Your task to perform on an android device: turn off notifications settings in the gmail app Image 0: 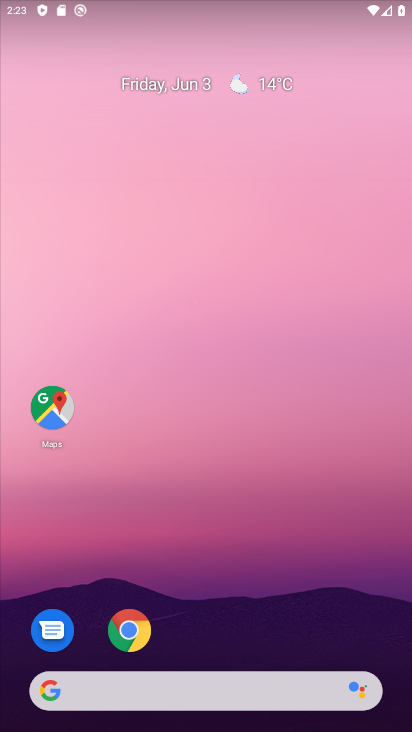
Step 0: drag from (217, 626) to (195, 240)
Your task to perform on an android device: turn off notifications settings in the gmail app Image 1: 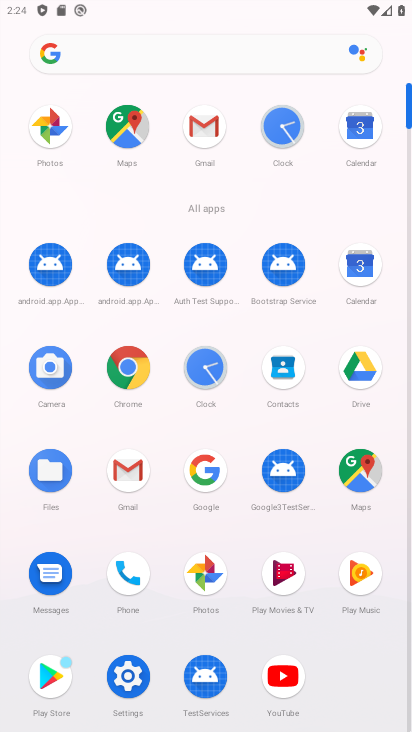
Step 1: click (211, 135)
Your task to perform on an android device: turn off notifications settings in the gmail app Image 2: 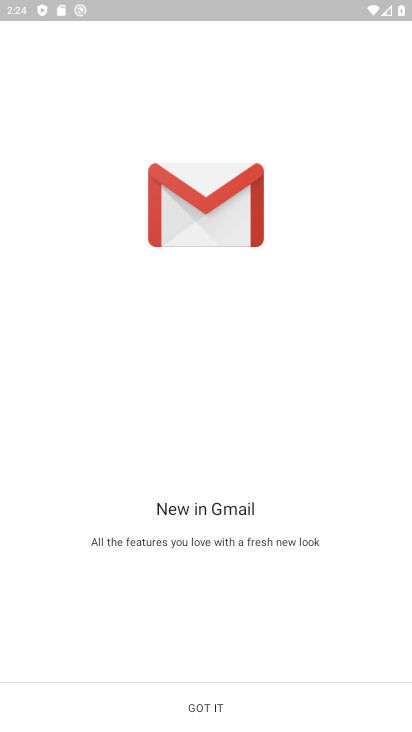
Step 2: click (216, 700)
Your task to perform on an android device: turn off notifications settings in the gmail app Image 3: 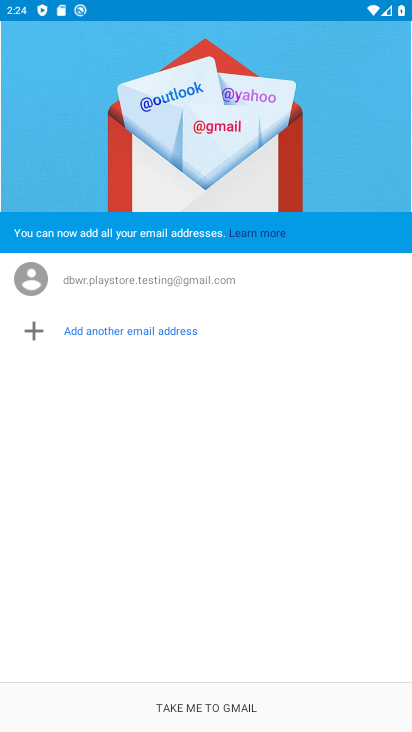
Step 3: click (216, 701)
Your task to perform on an android device: turn off notifications settings in the gmail app Image 4: 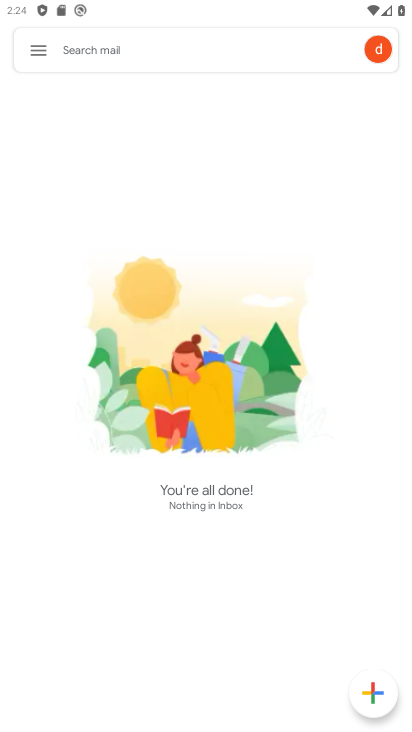
Step 4: click (42, 47)
Your task to perform on an android device: turn off notifications settings in the gmail app Image 5: 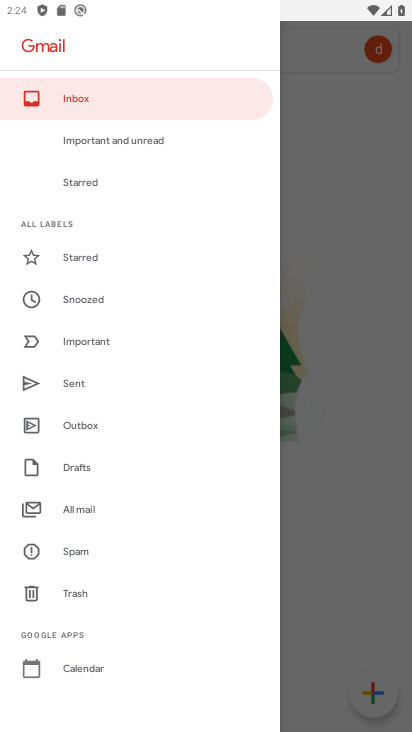
Step 5: drag from (122, 646) to (96, 229)
Your task to perform on an android device: turn off notifications settings in the gmail app Image 6: 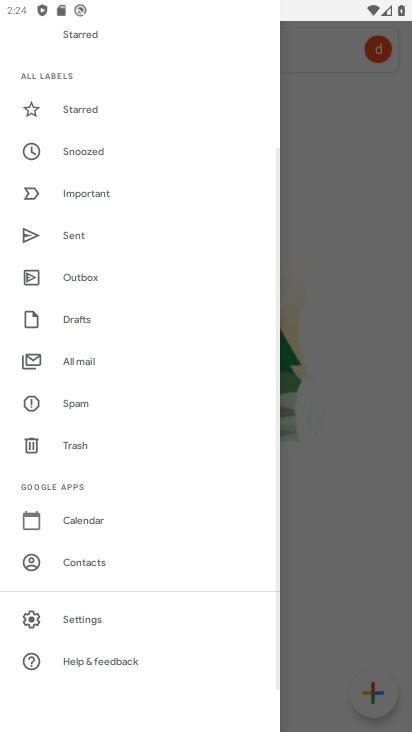
Step 6: click (85, 620)
Your task to perform on an android device: turn off notifications settings in the gmail app Image 7: 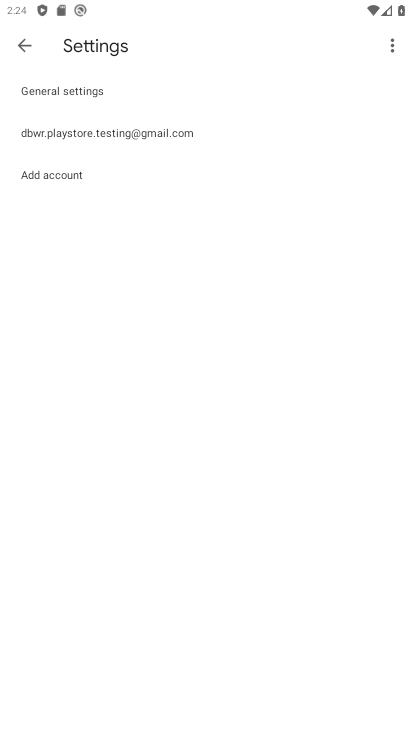
Step 7: click (123, 135)
Your task to perform on an android device: turn off notifications settings in the gmail app Image 8: 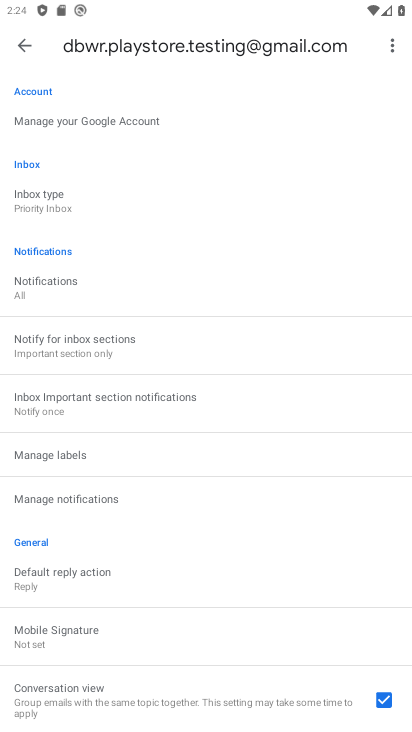
Step 8: click (140, 519)
Your task to perform on an android device: turn off notifications settings in the gmail app Image 9: 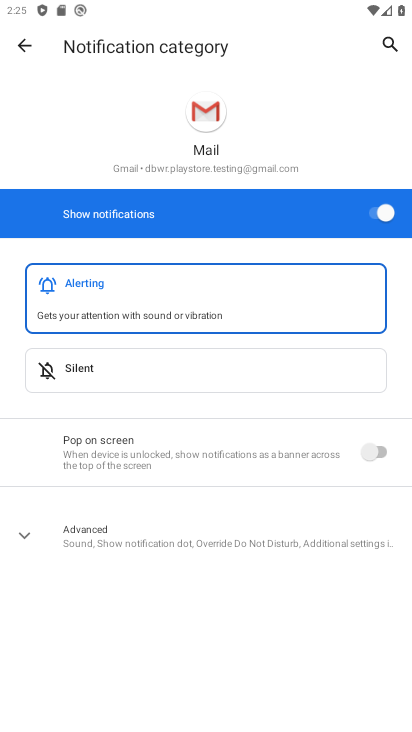
Step 9: task complete